Your task to perform on an android device: turn vacation reply on in the gmail app Image 0: 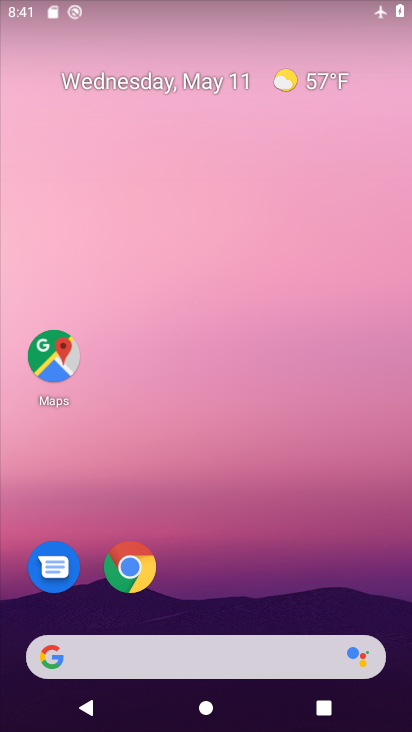
Step 0: drag from (287, 544) to (208, 61)
Your task to perform on an android device: turn vacation reply on in the gmail app Image 1: 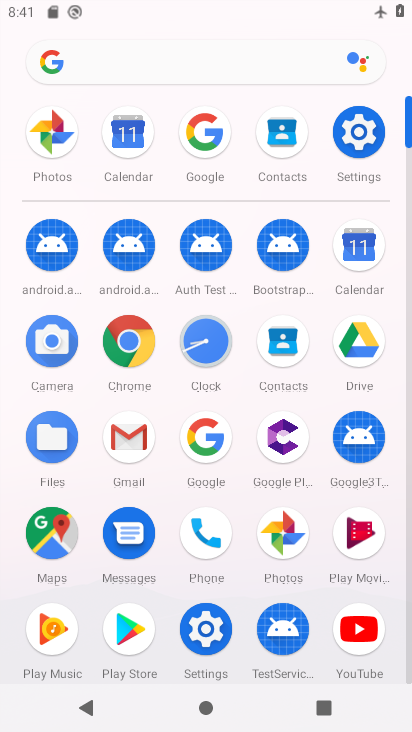
Step 1: click (122, 446)
Your task to perform on an android device: turn vacation reply on in the gmail app Image 2: 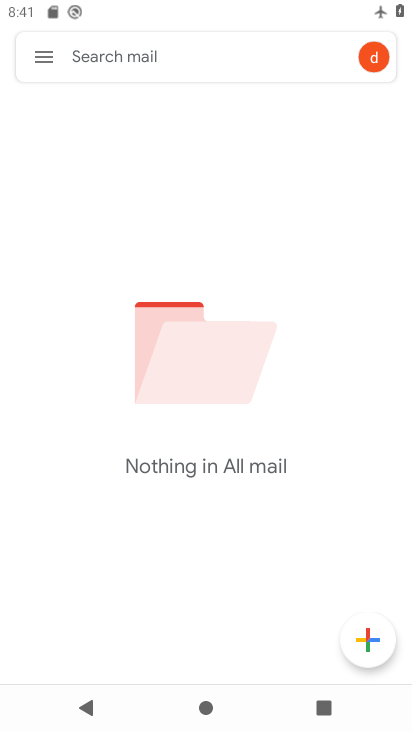
Step 2: click (41, 56)
Your task to perform on an android device: turn vacation reply on in the gmail app Image 3: 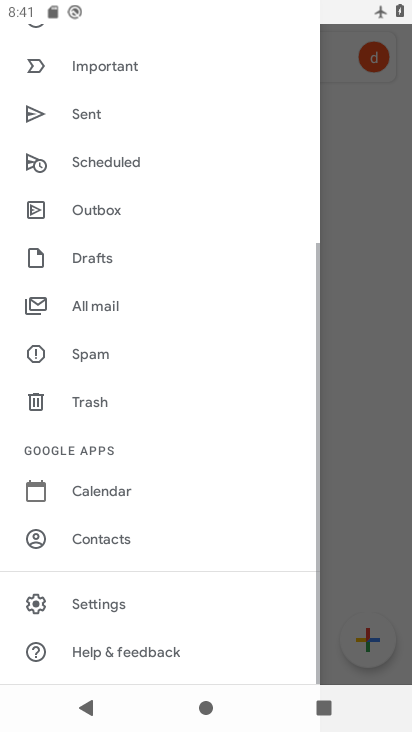
Step 3: click (157, 609)
Your task to perform on an android device: turn vacation reply on in the gmail app Image 4: 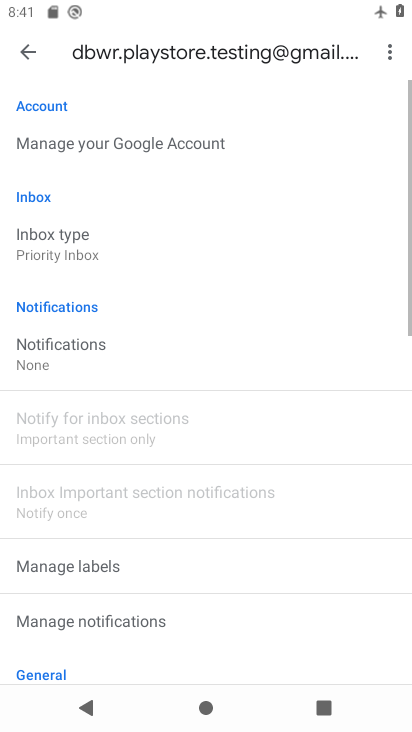
Step 4: drag from (197, 599) to (200, 89)
Your task to perform on an android device: turn vacation reply on in the gmail app Image 5: 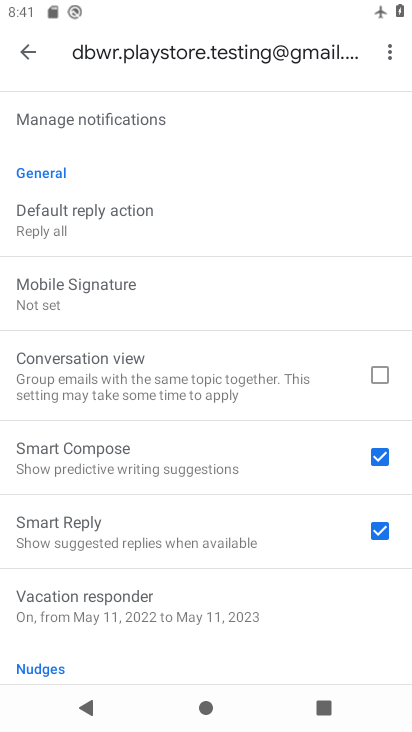
Step 5: click (175, 600)
Your task to perform on an android device: turn vacation reply on in the gmail app Image 6: 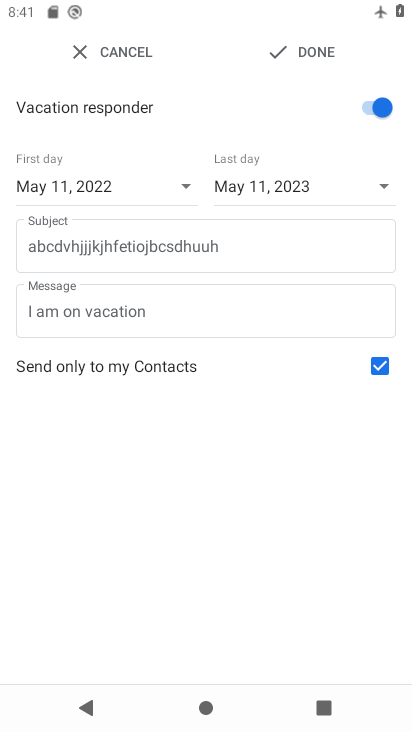
Step 6: click (316, 49)
Your task to perform on an android device: turn vacation reply on in the gmail app Image 7: 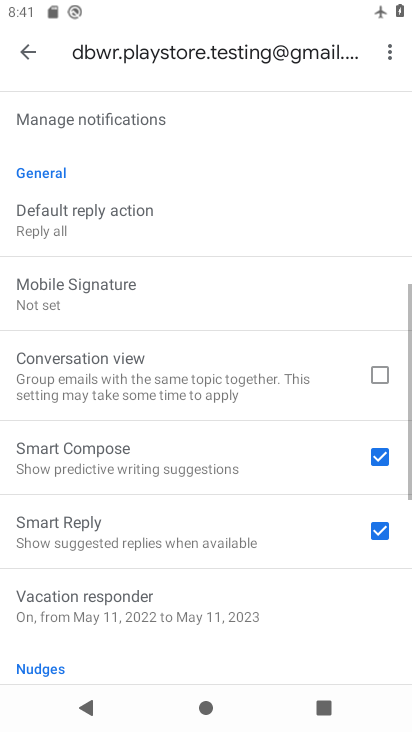
Step 7: task complete